Your task to perform on an android device: Go to Amazon Image 0: 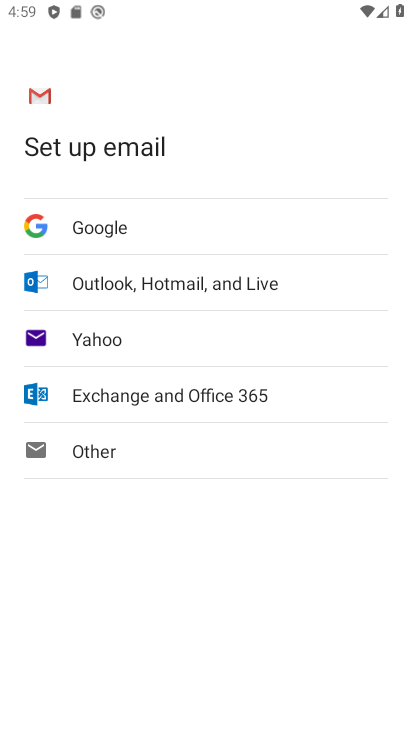
Step 0: press home button
Your task to perform on an android device: Go to Amazon Image 1: 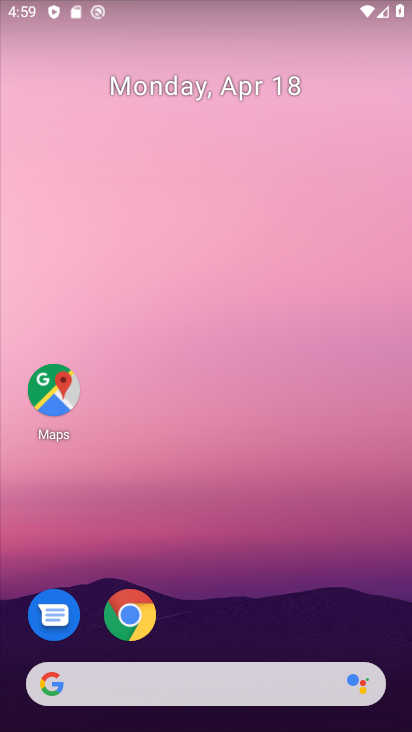
Step 1: click (136, 610)
Your task to perform on an android device: Go to Amazon Image 2: 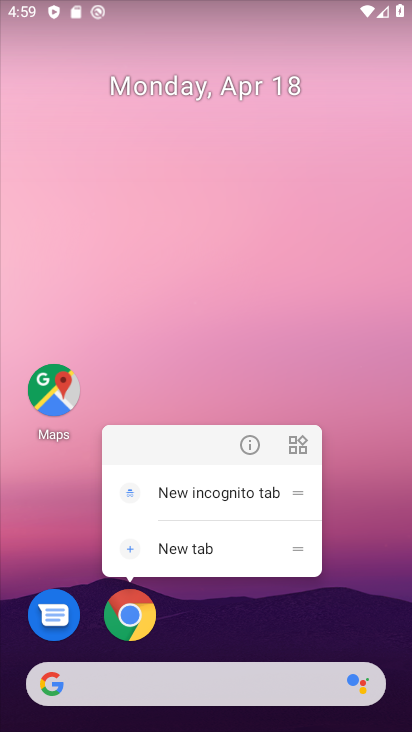
Step 2: click (335, 620)
Your task to perform on an android device: Go to Amazon Image 3: 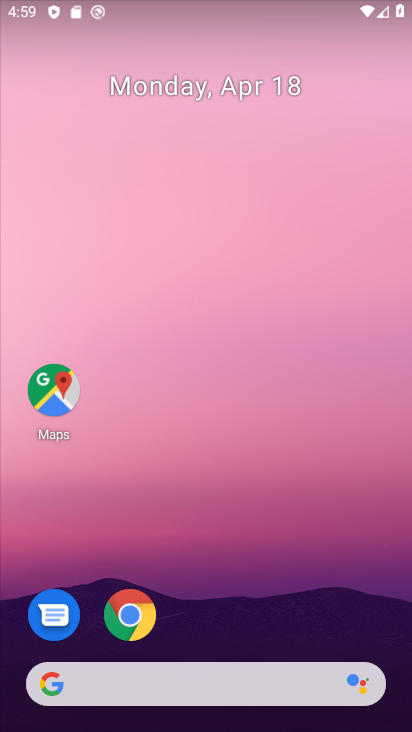
Step 3: drag from (335, 620) to (237, 8)
Your task to perform on an android device: Go to Amazon Image 4: 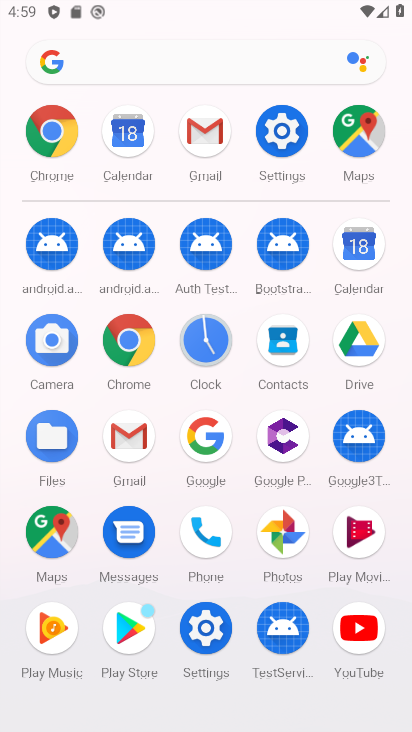
Step 4: click (128, 346)
Your task to perform on an android device: Go to Amazon Image 5: 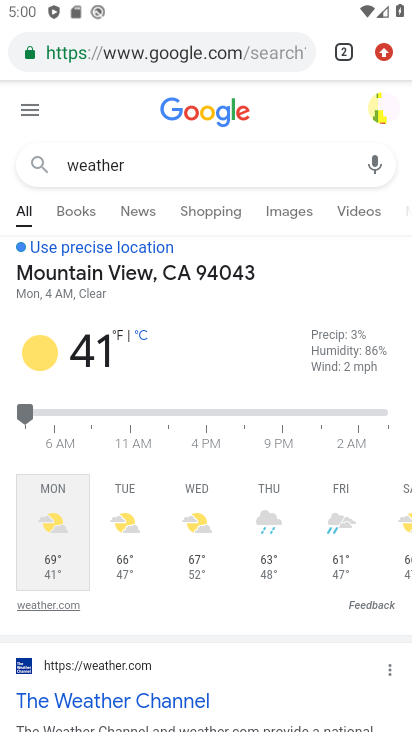
Step 5: click (250, 159)
Your task to perform on an android device: Go to Amazon Image 6: 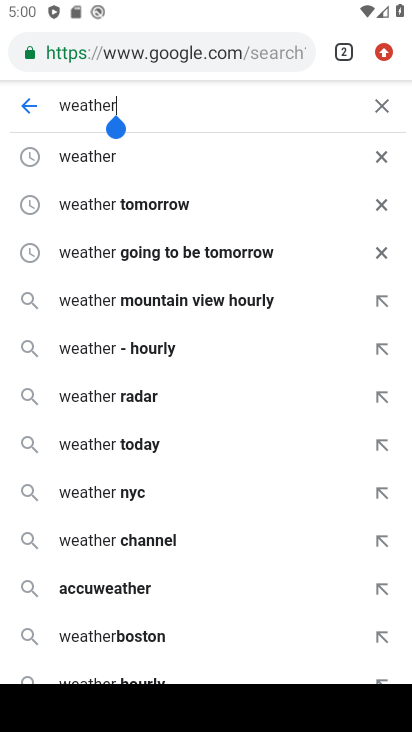
Step 6: click (382, 106)
Your task to perform on an android device: Go to Amazon Image 7: 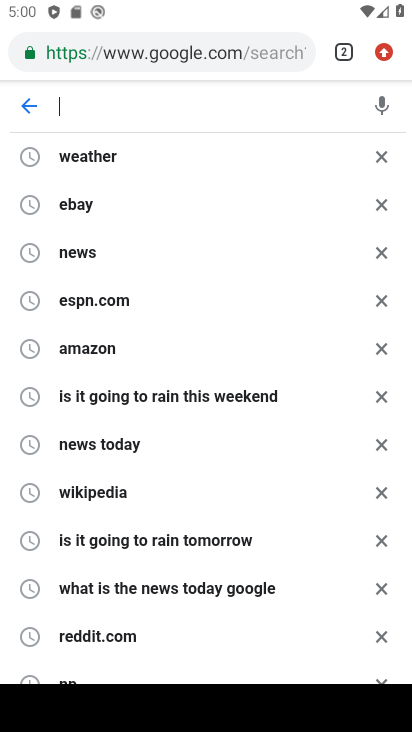
Step 7: click (263, 106)
Your task to perform on an android device: Go to Amazon Image 8: 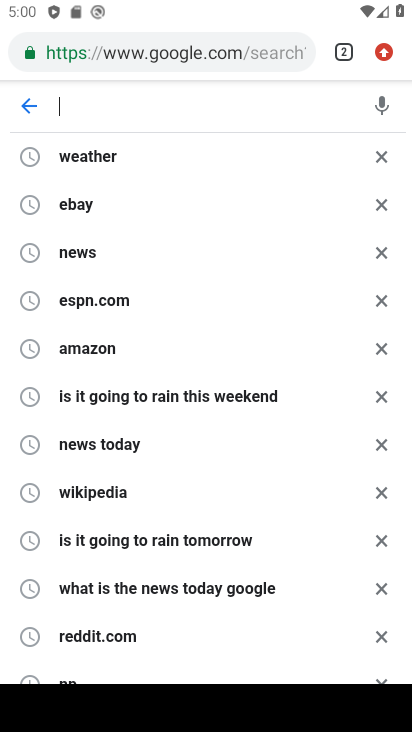
Step 8: type "Amazon"
Your task to perform on an android device: Go to Amazon Image 9: 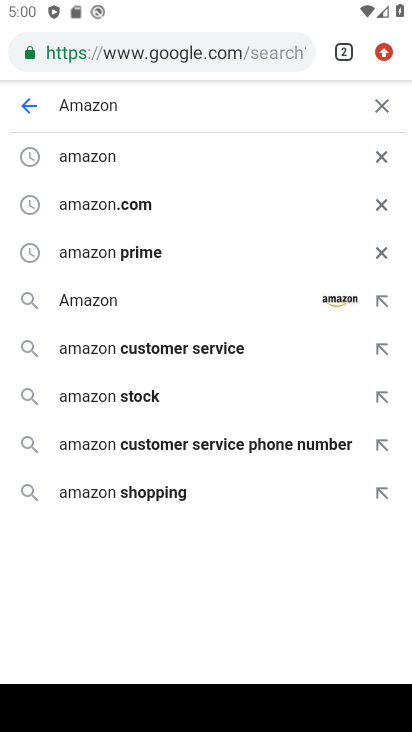
Step 9: click (106, 151)
Your task to perform on an android device: Go to Amazon Image 10: 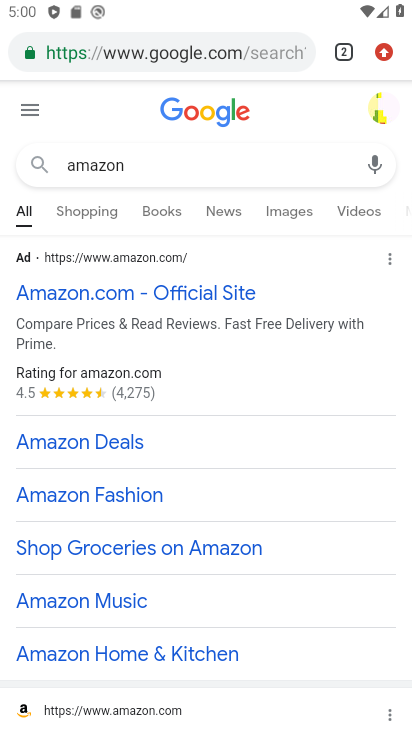
Step 10: click (190, 290)
Your task to perform on an android device: Go to Amazon Image 11: 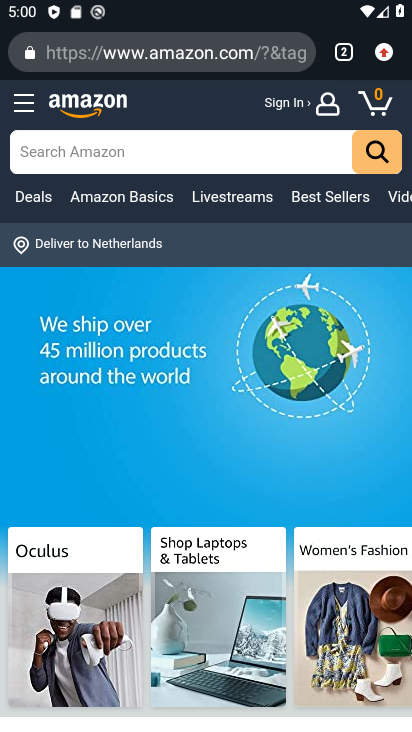
Step 11: task complete